Your task to perform on an android device: Open battery settings Image 0: 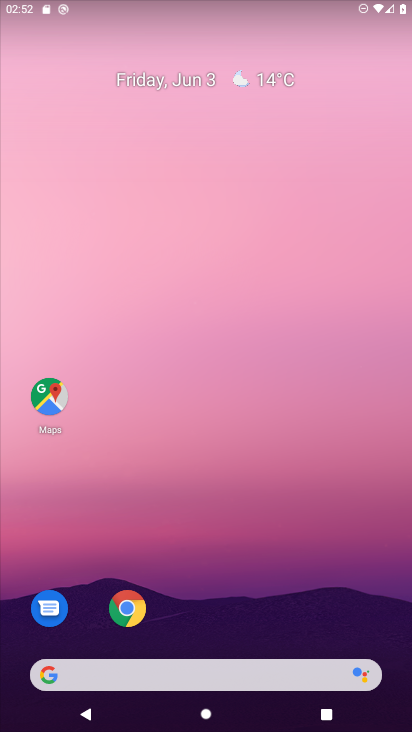
Step 0: drag from (229, 556) to (180, 216)
Your task to perform on an android device: Open battery settings Image 1: 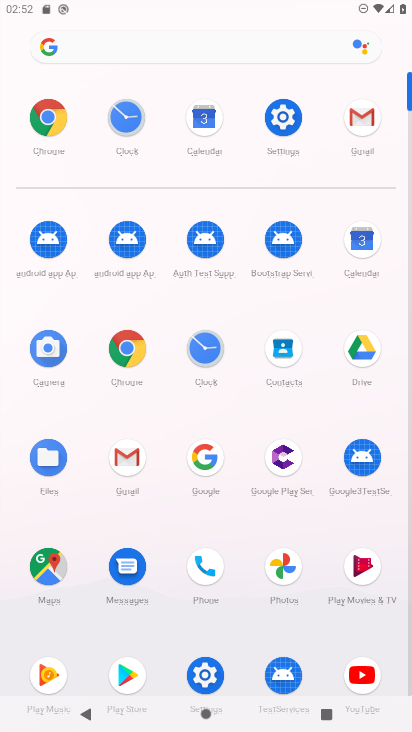
Step 1: click (285, 125)
Your task to perform on an android device: Open battery settings Image 2: 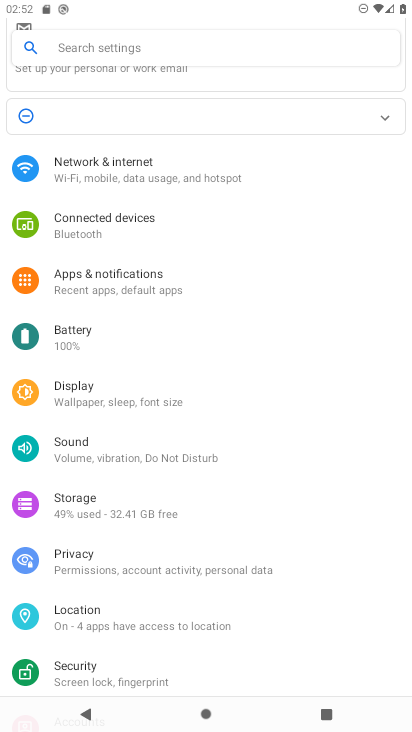
Step 2: click (97, 345)
Your task to perform on an android device: Open battery settings Image 3: 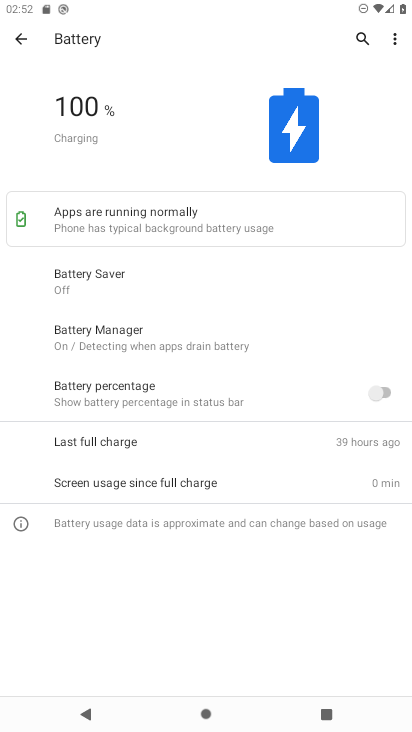
Step 3: task complete